Your task to perform on an android device: turn smart compose on in the gmail app Image 0: 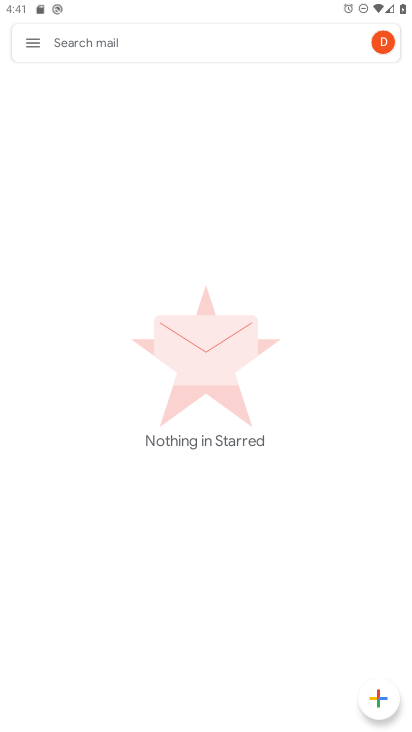
Step 0: click (32, 40)
Your task to perform on an android device: turn smart compose on in the gmail app Image 1: 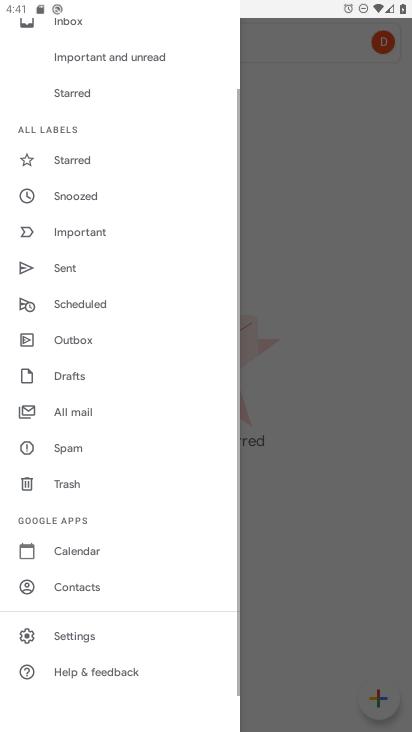
Step 1: click (74, 640)
Your task to perform on an android device: turn smart compose on in the gmail app Image 2: 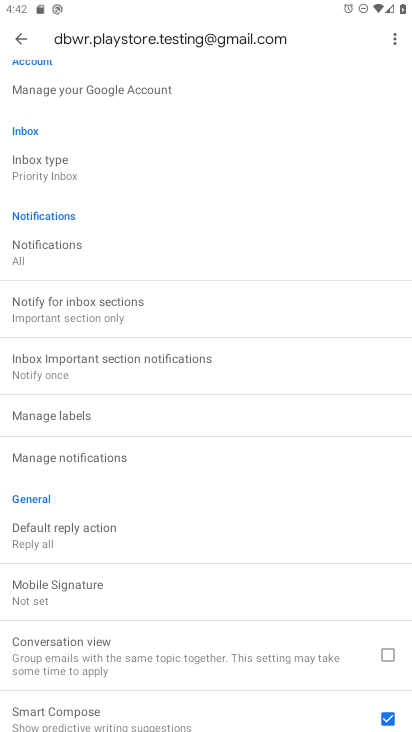
Step 2: drag from (300, 580) to (315, 190)
Your task to perform on an android device: turn smart compose on in the gmail app Image 3: 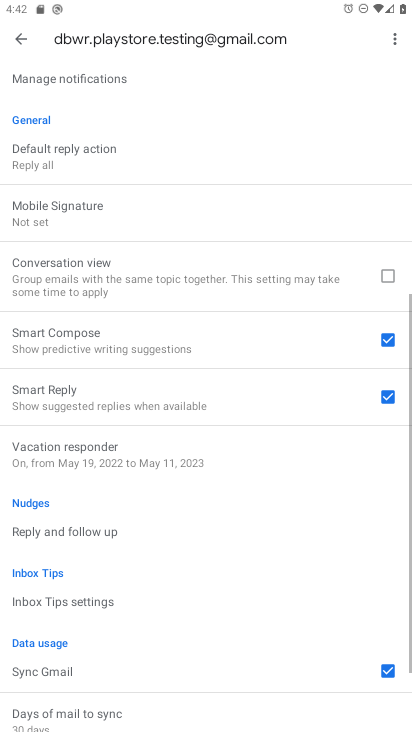
Step 3: click (316, 189)
Your task to perform on an android device: turn smart compose on in the gmail app Image 4: 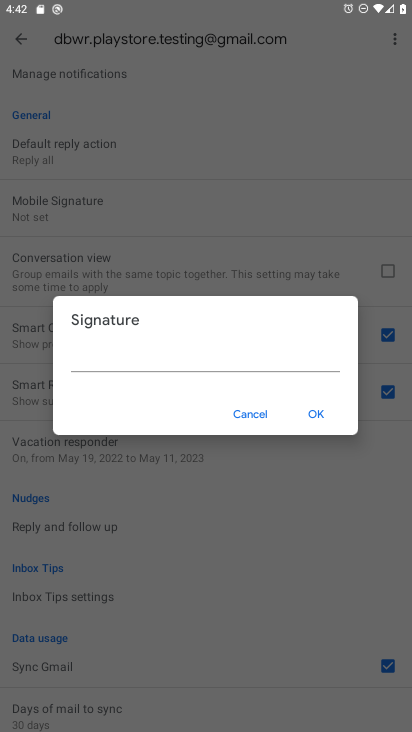
Step 4: click (262, 412)
Your task to perform on an android device: turn smart compose on in the gmail app Image 5: 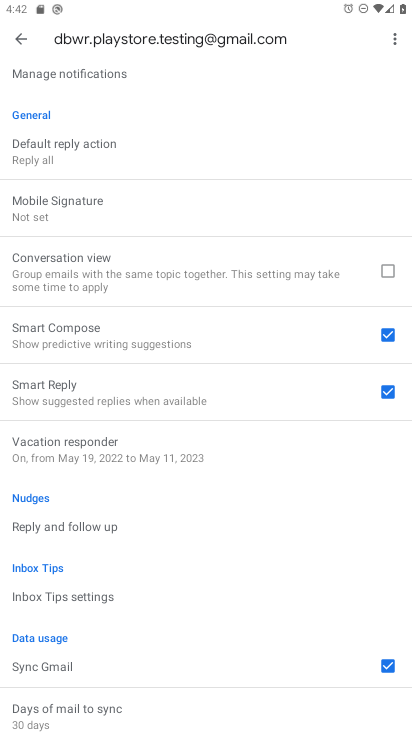
Step 5: task complete